Your task to perform on an android device: toggle show notifications on the lock screen Image 0: 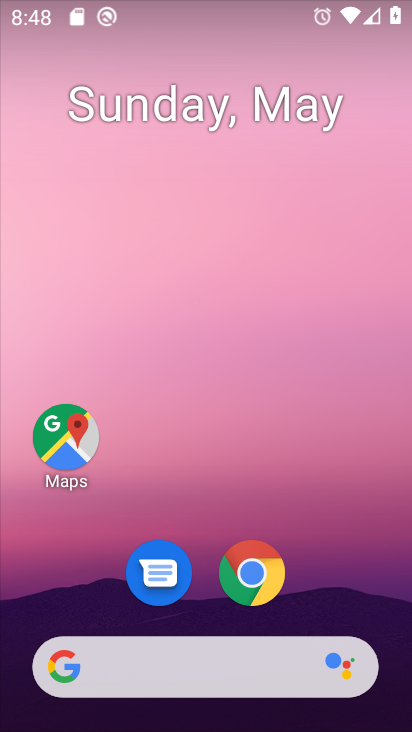
Step 0: drag from (235, 485) to (250, 0)
Your task to perform on an android device: toggle show notifications on the lock screen Image 1: 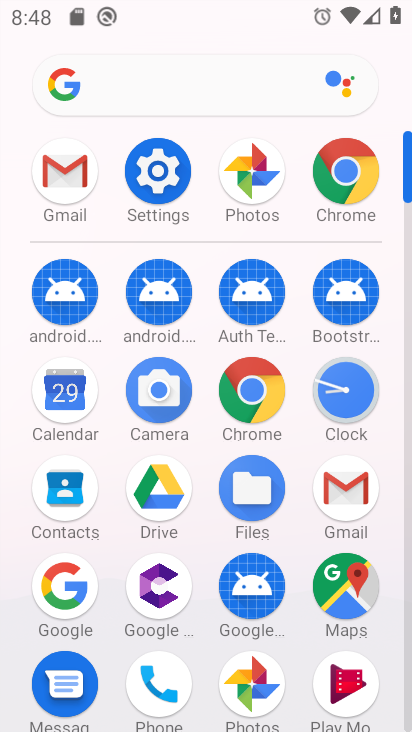
Step 1: click (169, 168)
Your task to perform on an android device: toggle show notifications on the lock screen Image 2: 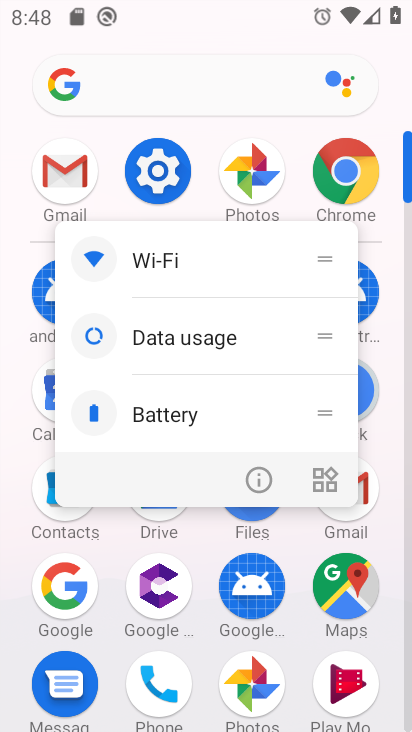
Step 2: click (169, 166)
Your task to perform on an android device: toggle show notifications on the lock screen Image 3: 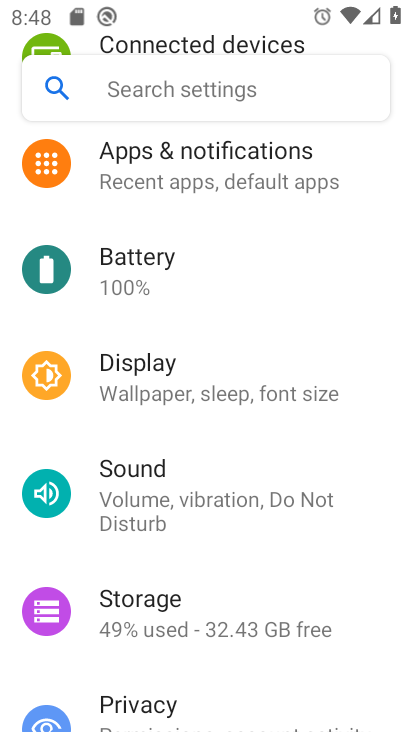
Step 3: click (238, 165)
Your task to perform on an android device: toggle show notifications on the lock screen Image 4: 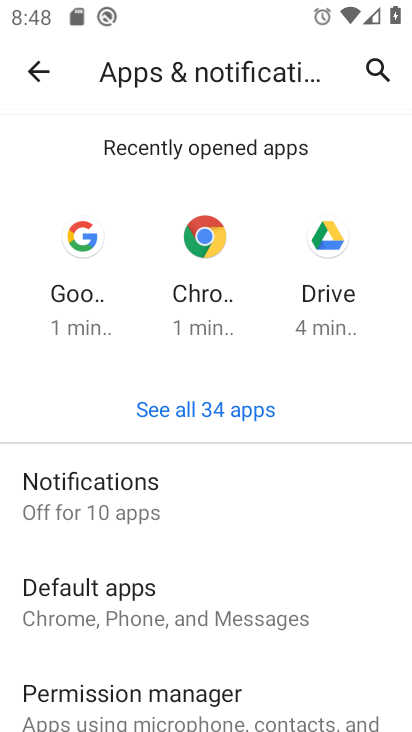
Step 4: drag from (247, 520) to (289, 128)
Your task to perform on an android device: toggle show notifications on the lock screen Image 5: 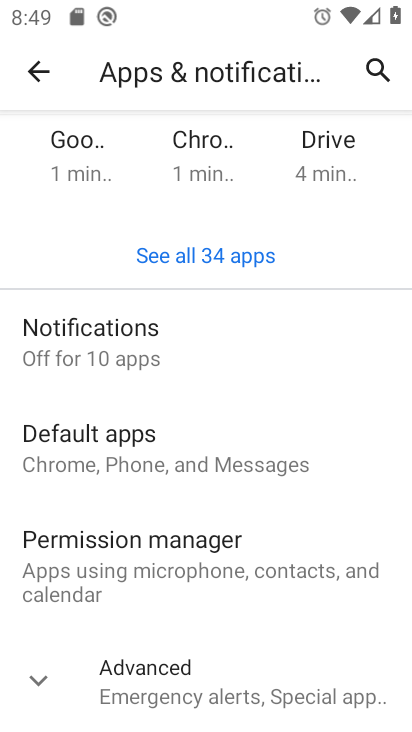
Step 5: click (115, 335)
Your task to perform on an android device: toggle show notifications on the lock screen Image 6: 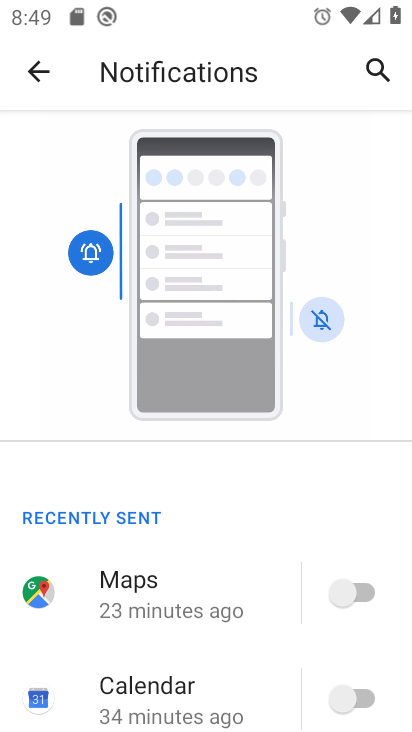
Step 6: drag from (221, 578) to (279, 167)
Your task to perform on an android device: toggle show notifications on the lock screen Image 7: 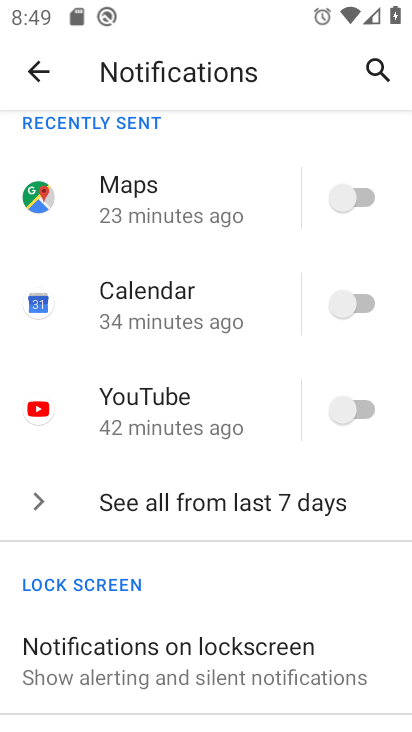
Step 7: click (223, 656)
Your task to perform on an android device: toggle show notifications on the lock screen Image 8: 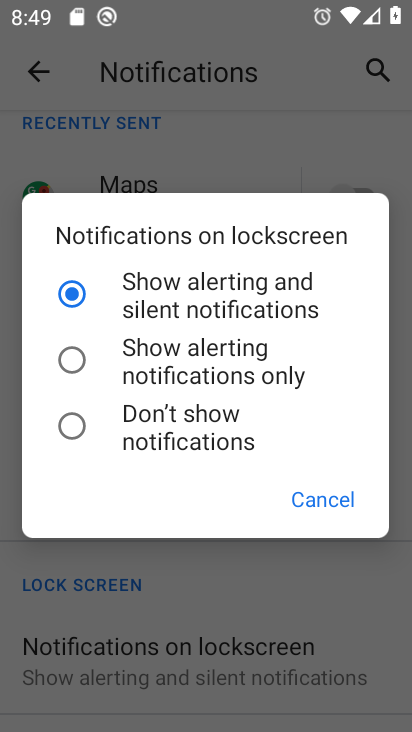
Step 8: click (332, 497)
Your task to perform on an android device: toggle show notifications on the lock screen Image 9: 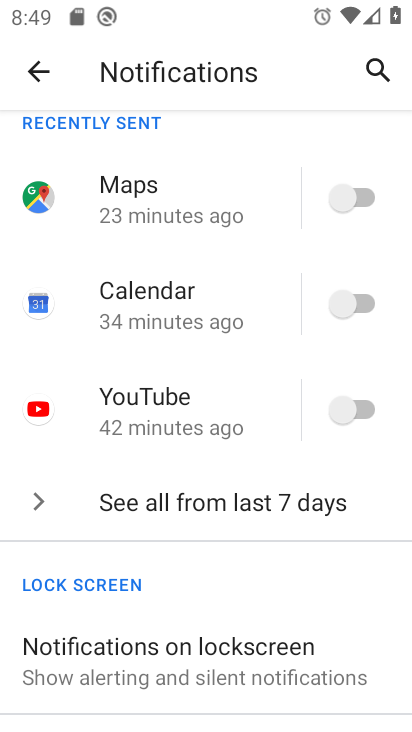
Step 9: task complete